Your task to perform on an android device: open app "Pinterest" (install if not already installed) Image 0: 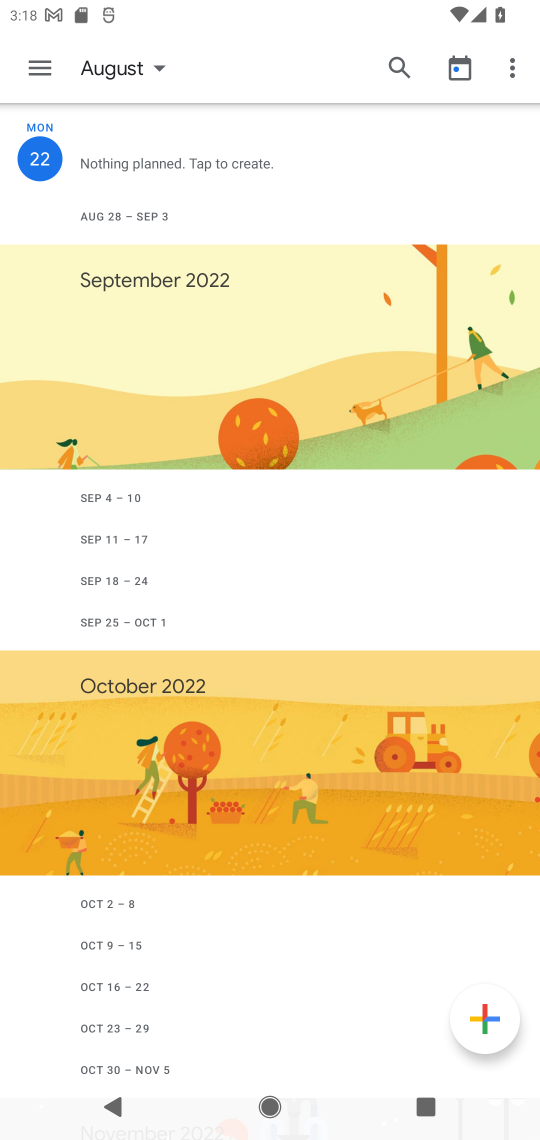
Step 0: press home button
Your task to perform on an android device: open app "Pinterest" (install if not already installed) Image 1: 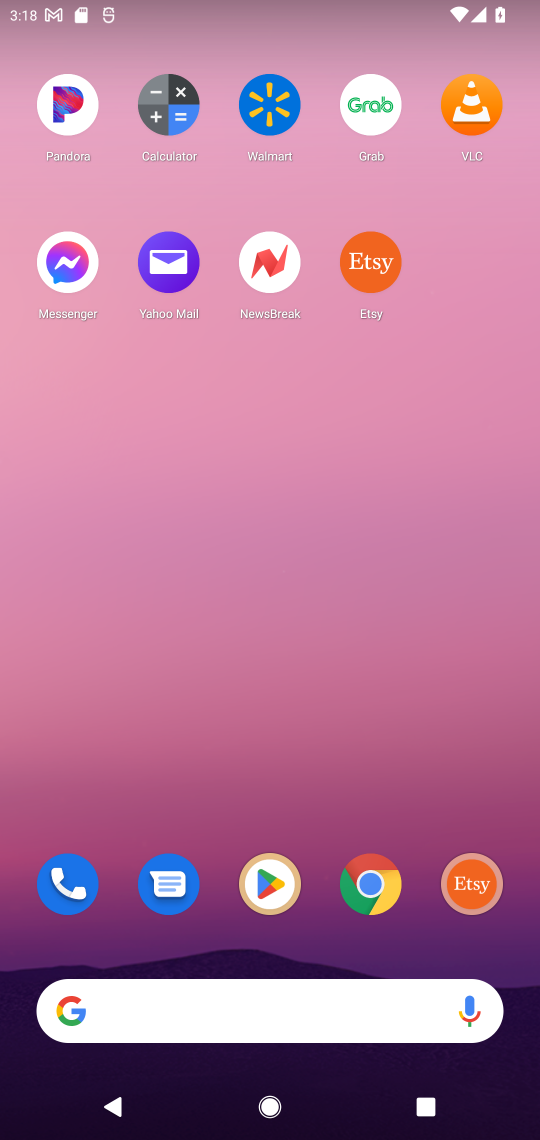
Step 1: click (268, 909)
Your task to perform on an android device: open app "Pinterest" (install if not already installed) Image 2: 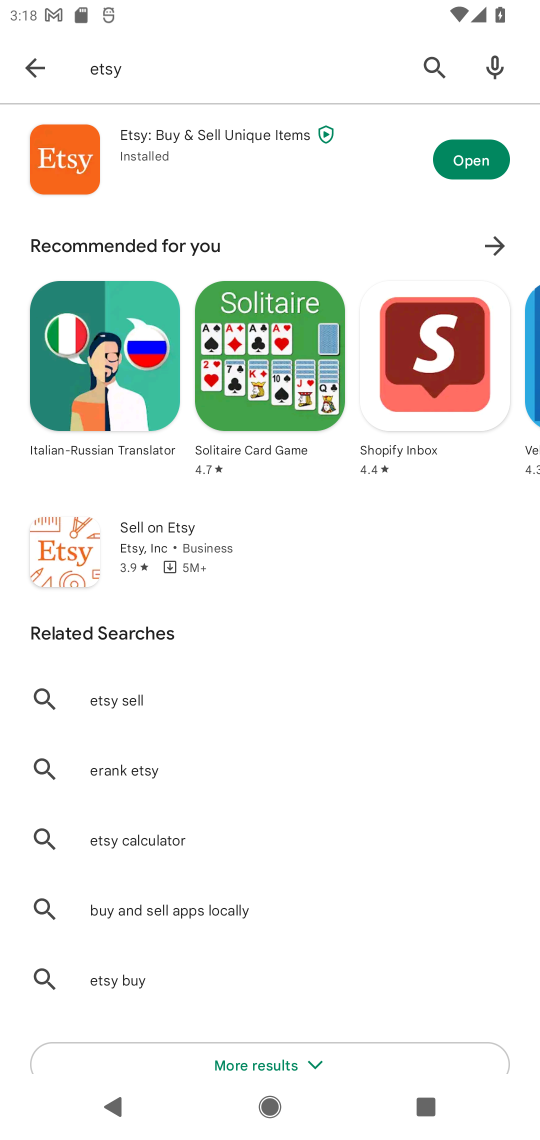
Step 2: click (158, 76)
Your task to perform on an android device: open app "Pinterest" (install if not already installed) Image 3: 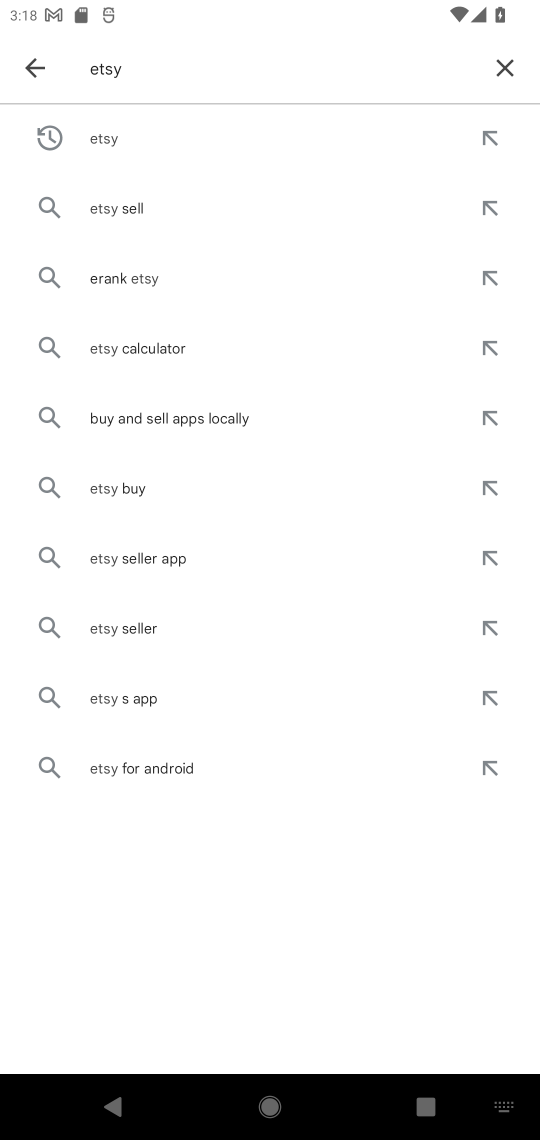
Step 3: click (501, 60)
Your task to perform on an android device: open app "Pinterest" (install if not already installed) Image 4: 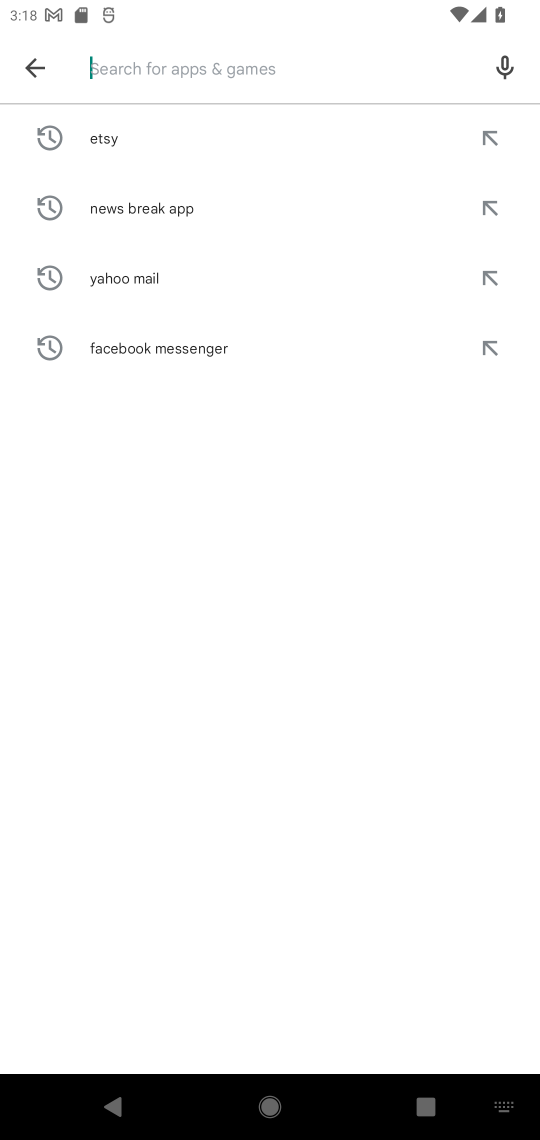
Step 4: type "Pinterest"
Your task to perform on an android device: open app "Pinterest" (install if not already installed) Image 5: 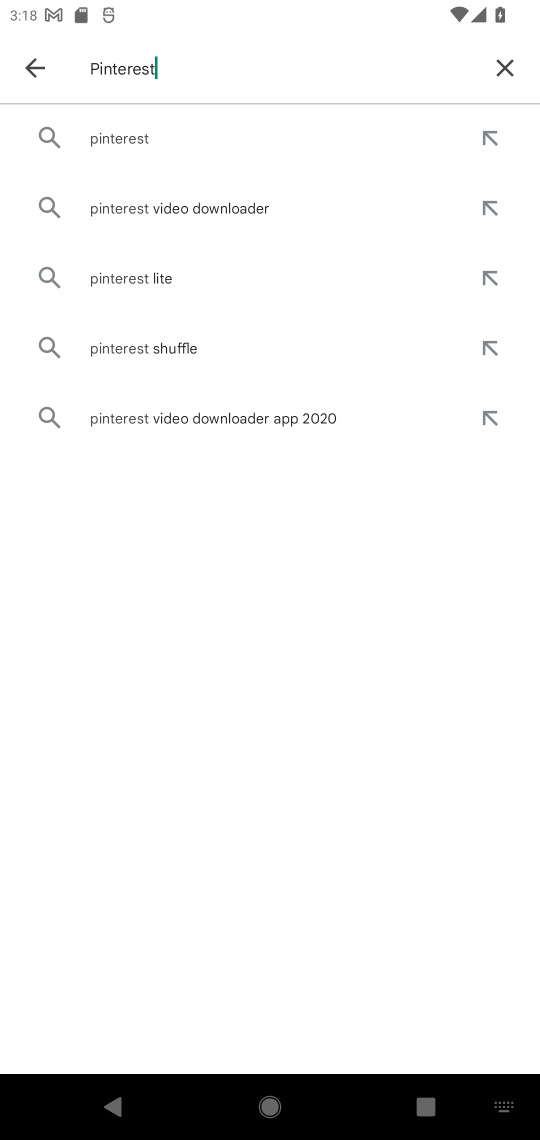
Step 5: click (143, 143)
Your task to perform on an android device: open app "Pinterest" (install if not already installed) Image 6: 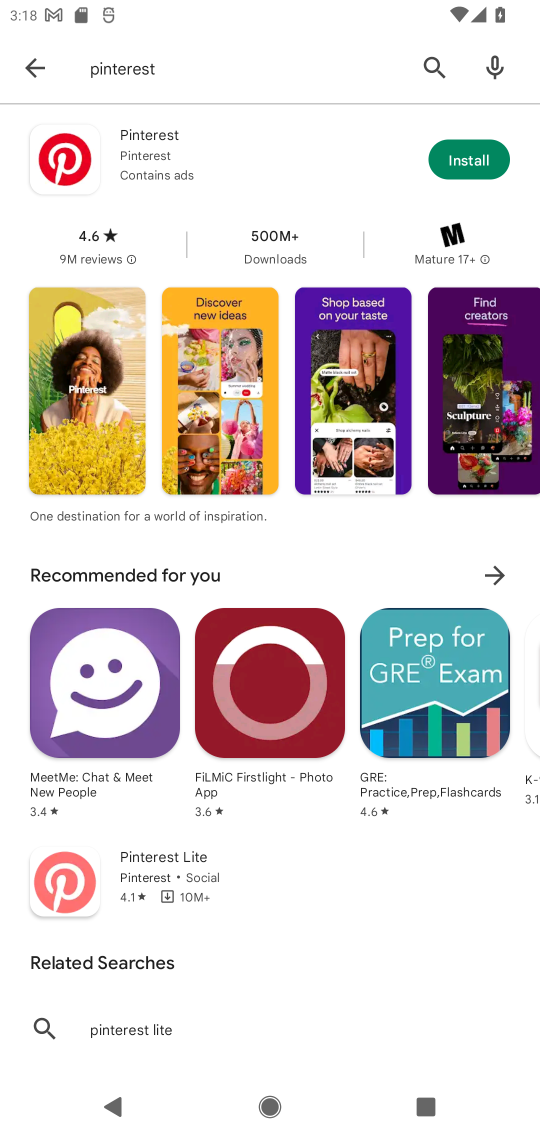
Step 6: click (476, 164)
Your task to perform on an android device: open app "Pinterest" (install if not already installed) Image 7: 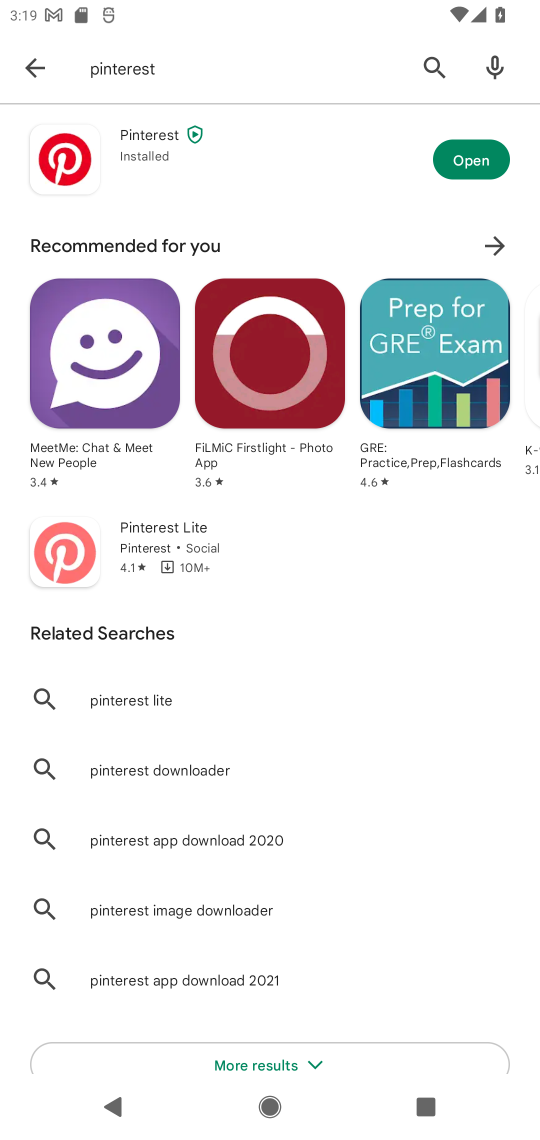
Step 7: click (466, 162)
Your task to perform on an android device: open app "Pinterest" (install if not already installed) Image 8: 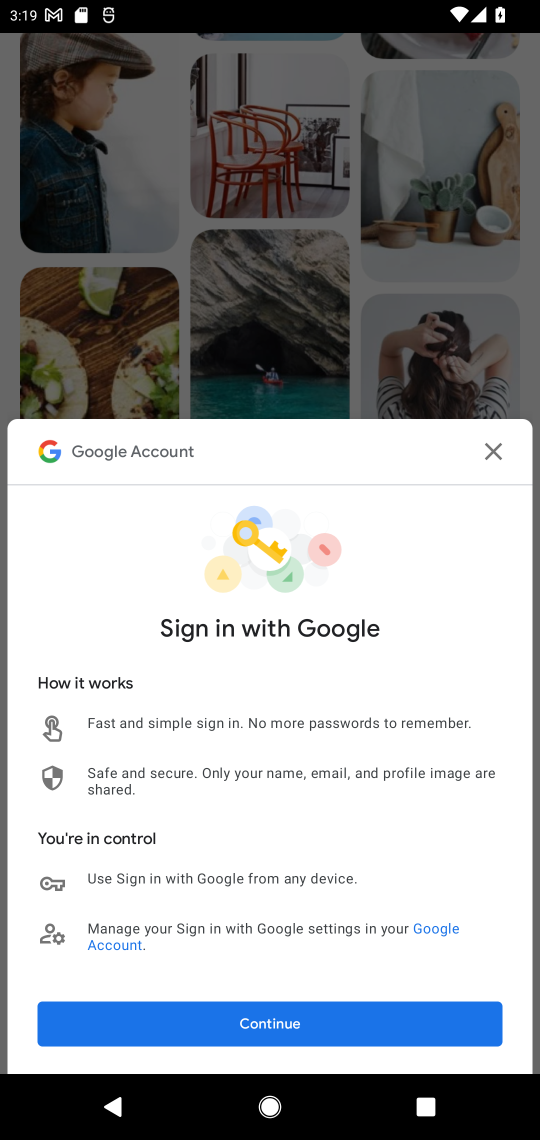
Step 8: click (293, 1025)
Your task to perform on an android device: open app "Pinterest" (install if not already installed) Image 9: 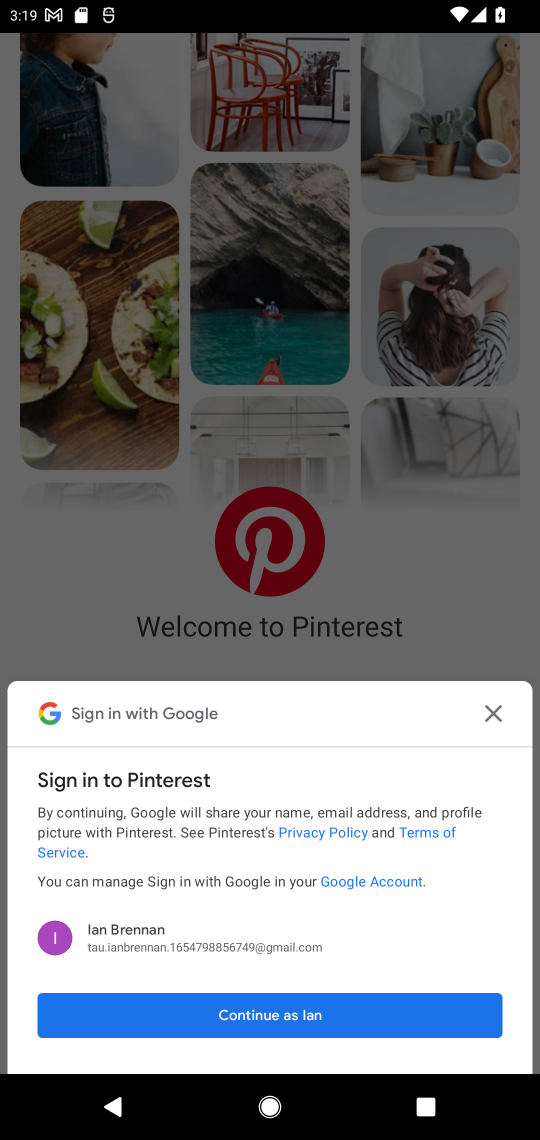
Step 9: click (294, 1027)
Your task to perform on an android device: open app "Pinterest" (install if not already installed) Image 10: 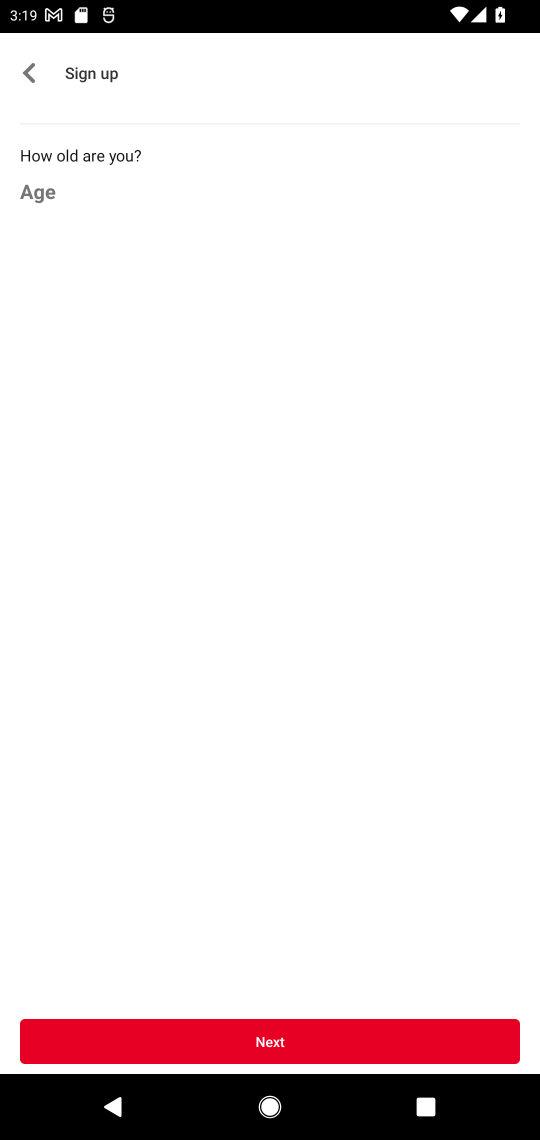
Step 10: task complete